Your task to perform on an android device: move a message to another label in the gmail app Image 0: 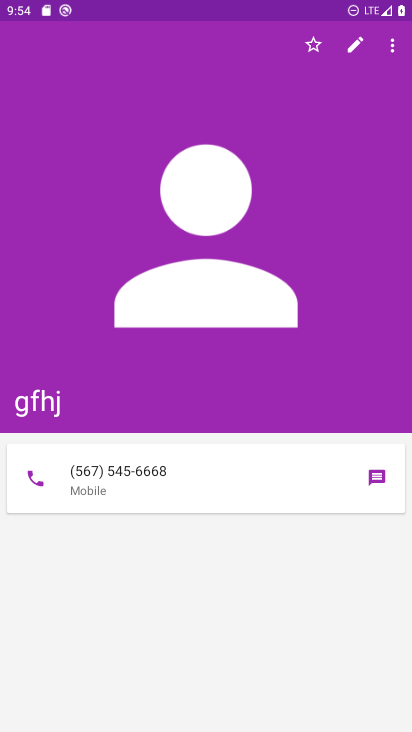
Step 0: press home button
Your task to perform on an android device: move a message to another label in the gmail app Image 1: 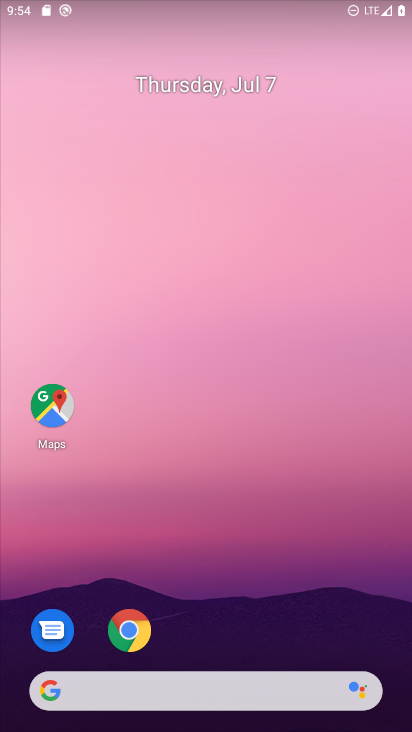
Step 1: drag from (197, 624) to (203, 107)
Your task to perform on an android device: move a message to another label in the gmail app Image 2: 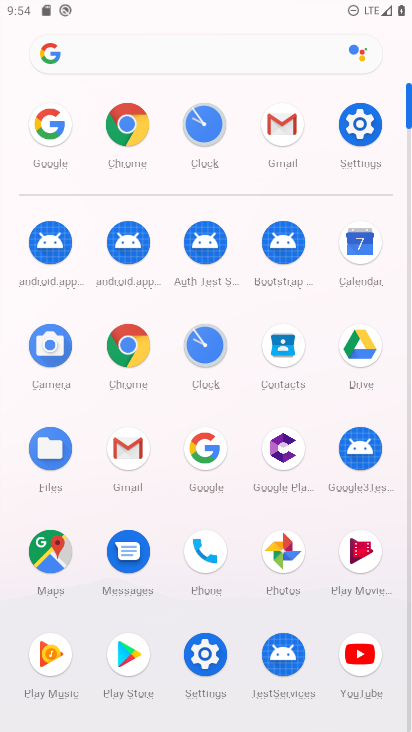
Step 2: click (266, 143)
Your task to perform on an android device: move a message to another label in the gmail app Image 3: 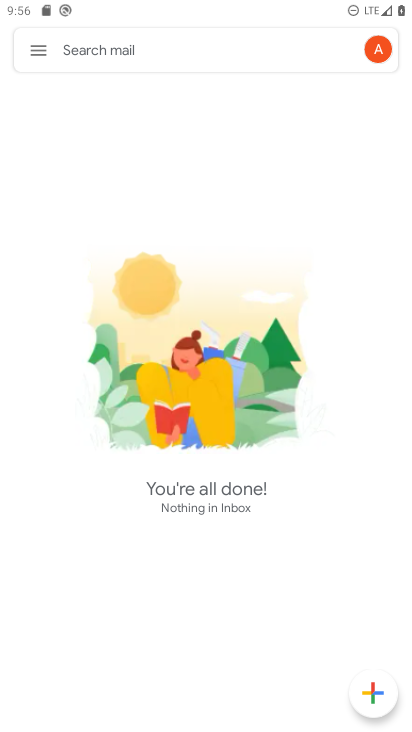
Step 3: task complete